Your task to perform on an android device: turn off javascript in the chrome app Image 0: 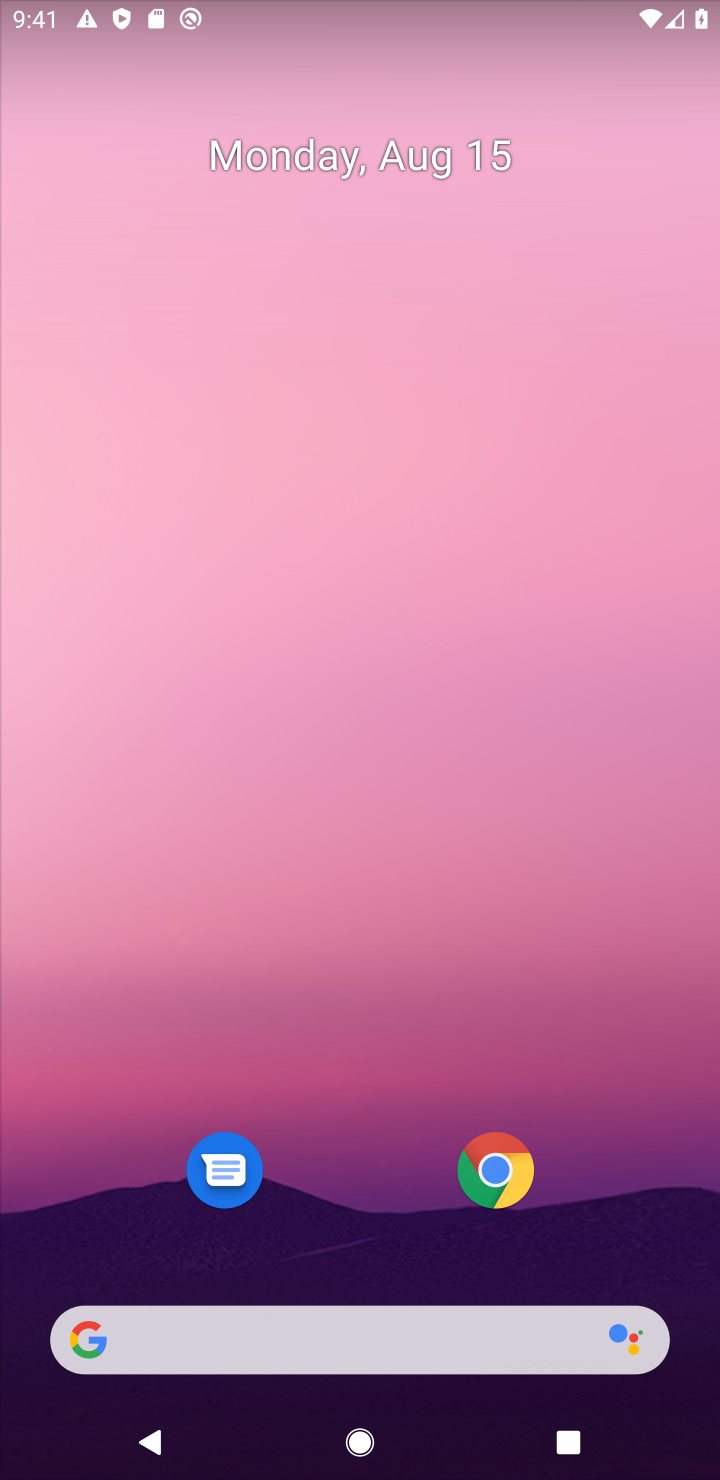
Step 0: press home button
Your task to perform on an android device: turn off javascript in the chrome app Image 1: 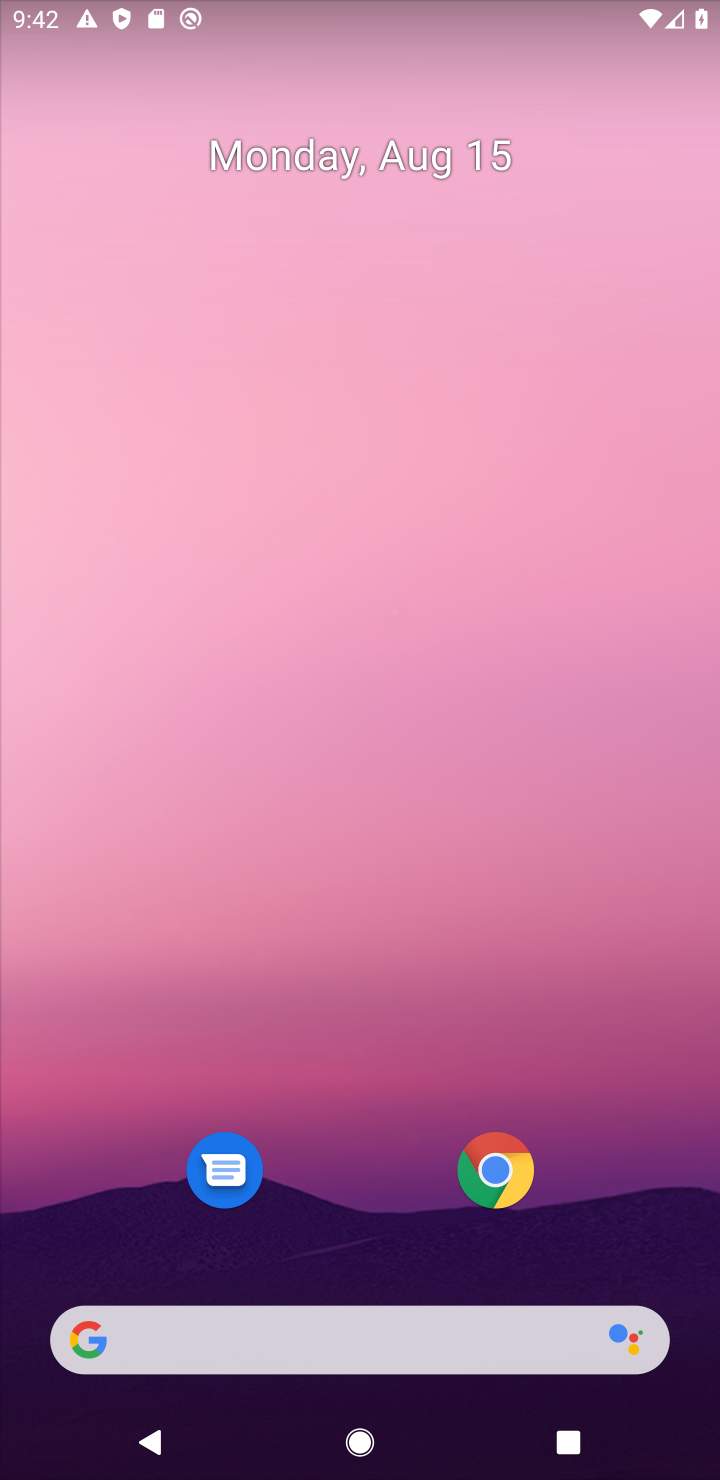
Step 1: drag from (381, 1224) to (455, 8)
Your task to perform on an android device: turn off javascript in the chrome app Image 2: 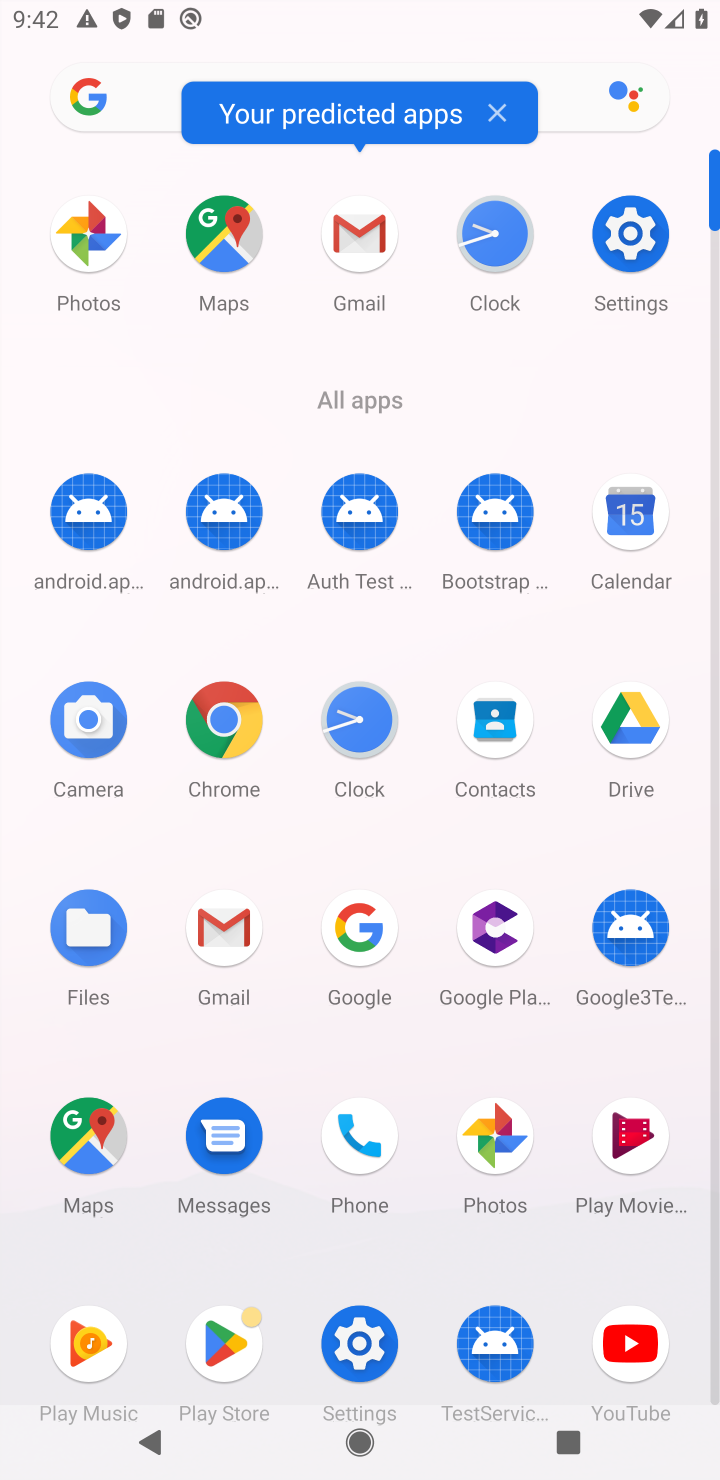
Step 2: click (213, 711)
Your task to perform on an android device: turn off javascript in the chrome app Image 3: 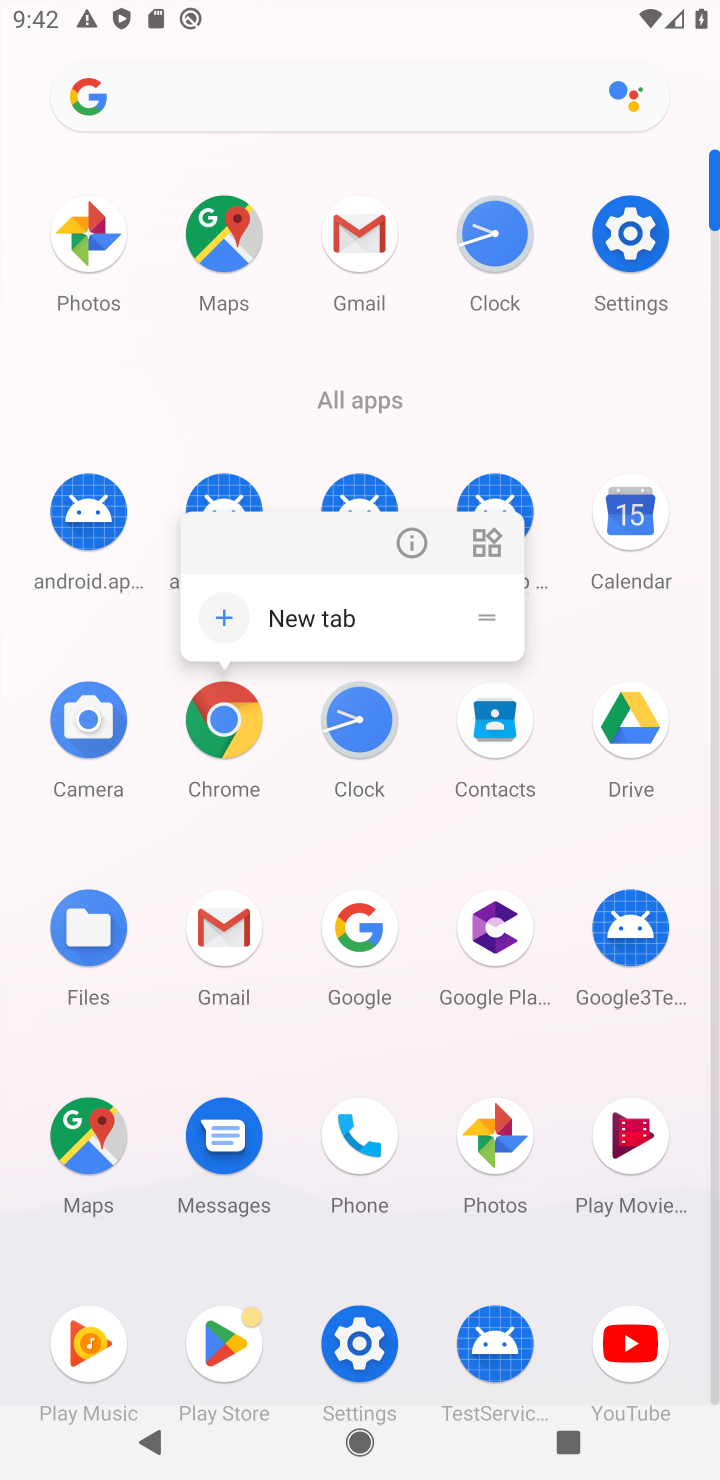
Step 3: click (218, 721)
Your task to perform on an android device: turn off javascript in the chrome app Image 4: 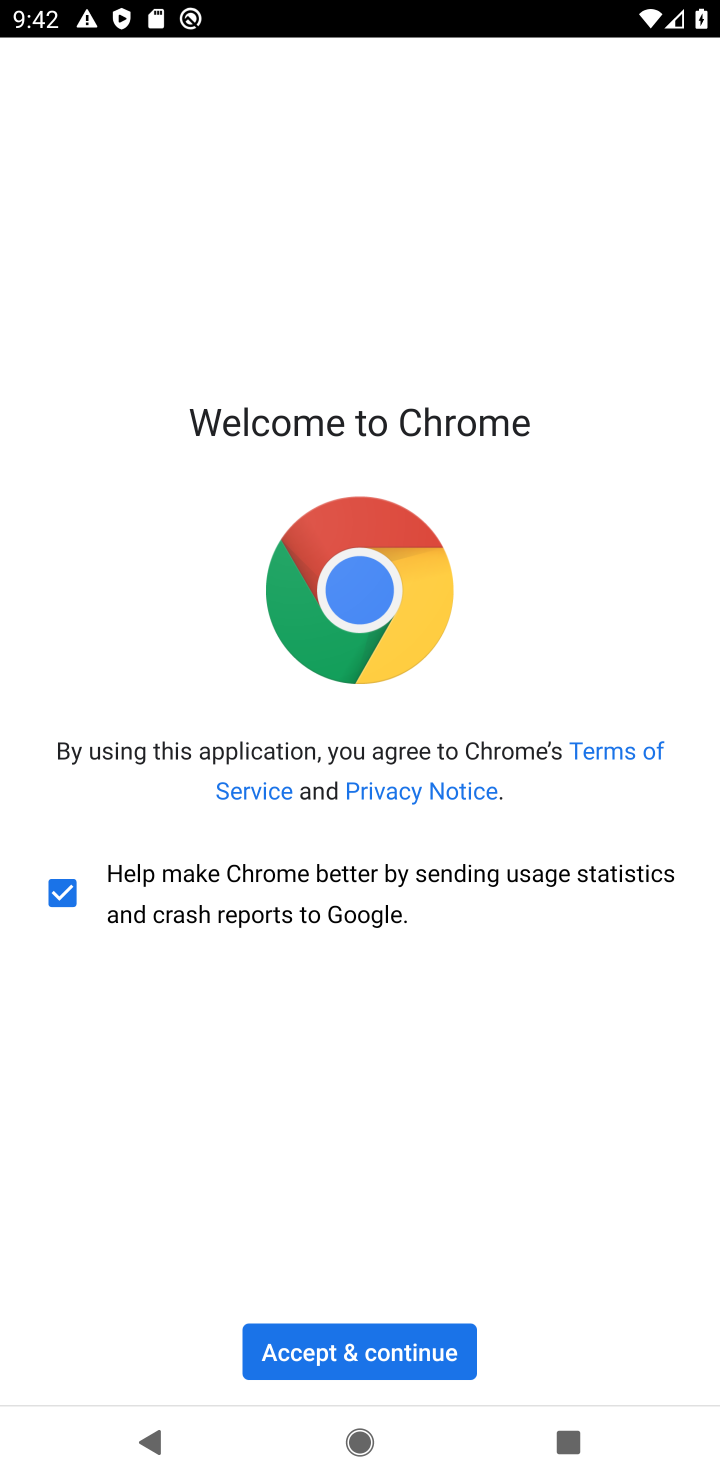
Step 4: click (349, 1335)
Your task to perform on an android device: turn off javascript in the chrome app Image 5: 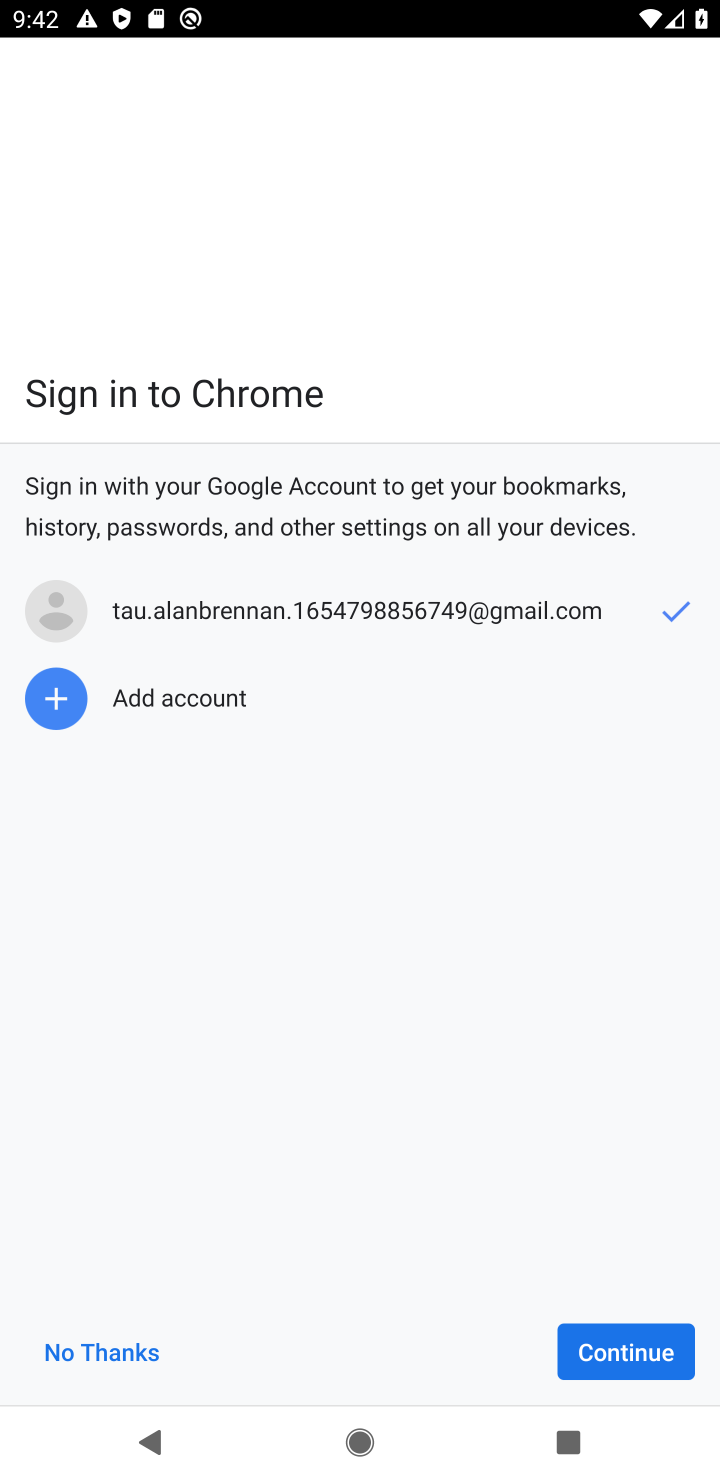
Step 5: click (627, 1343)
Your task to perform on an android device: turn off javascript in the chrome app Image 6: 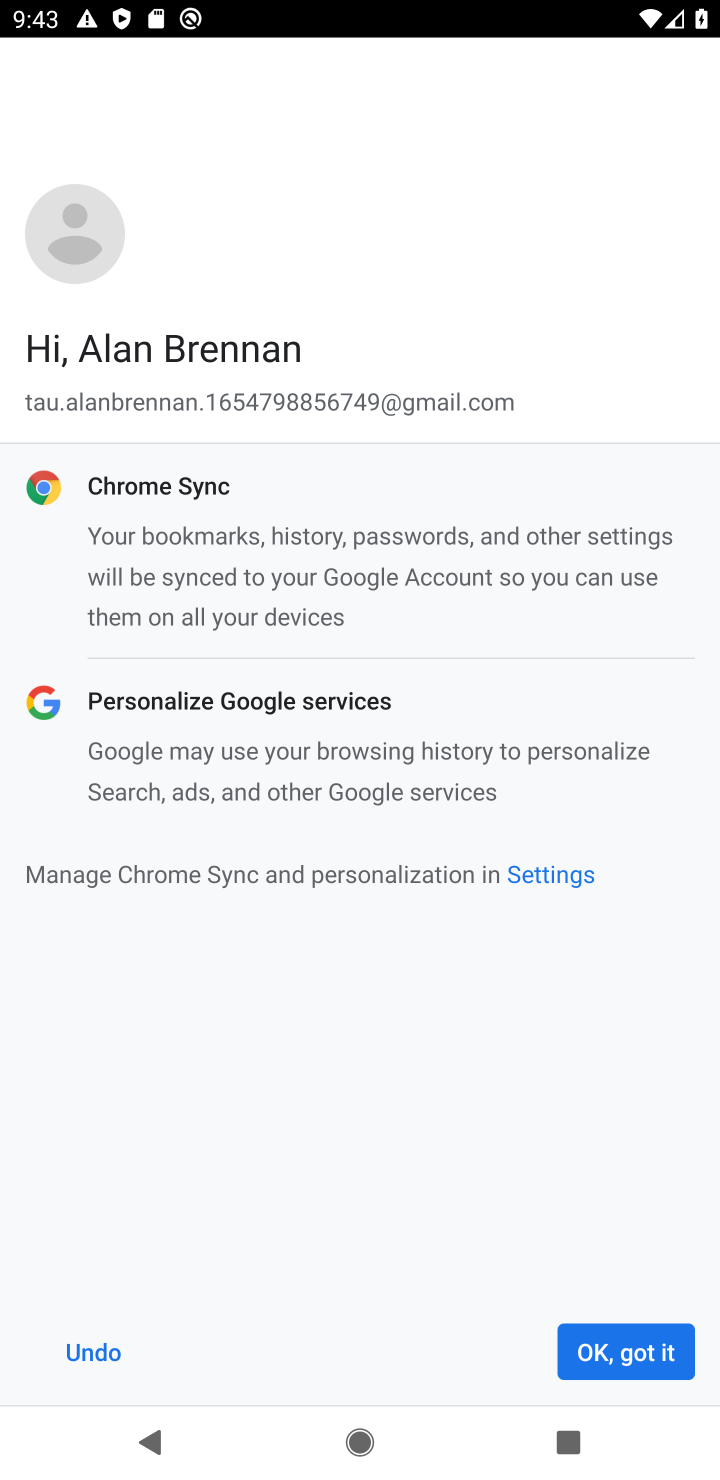
Step 6: click (627, 1343)
Your task to perform on an android device: turn off javascript in the chrome app Image 7: 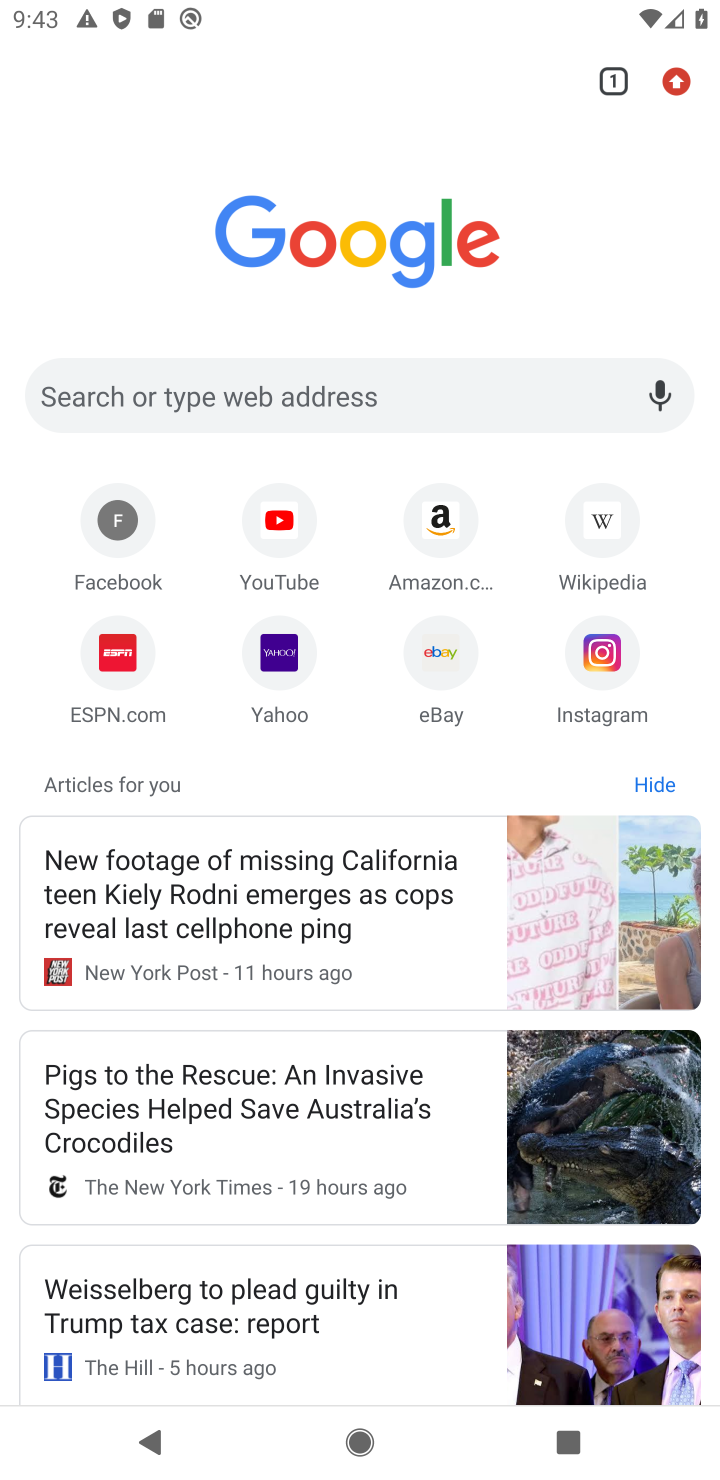
Step 7: click (677, 75)
Your task to perform on an android device: turn off javascript in the chrome app Image 8: 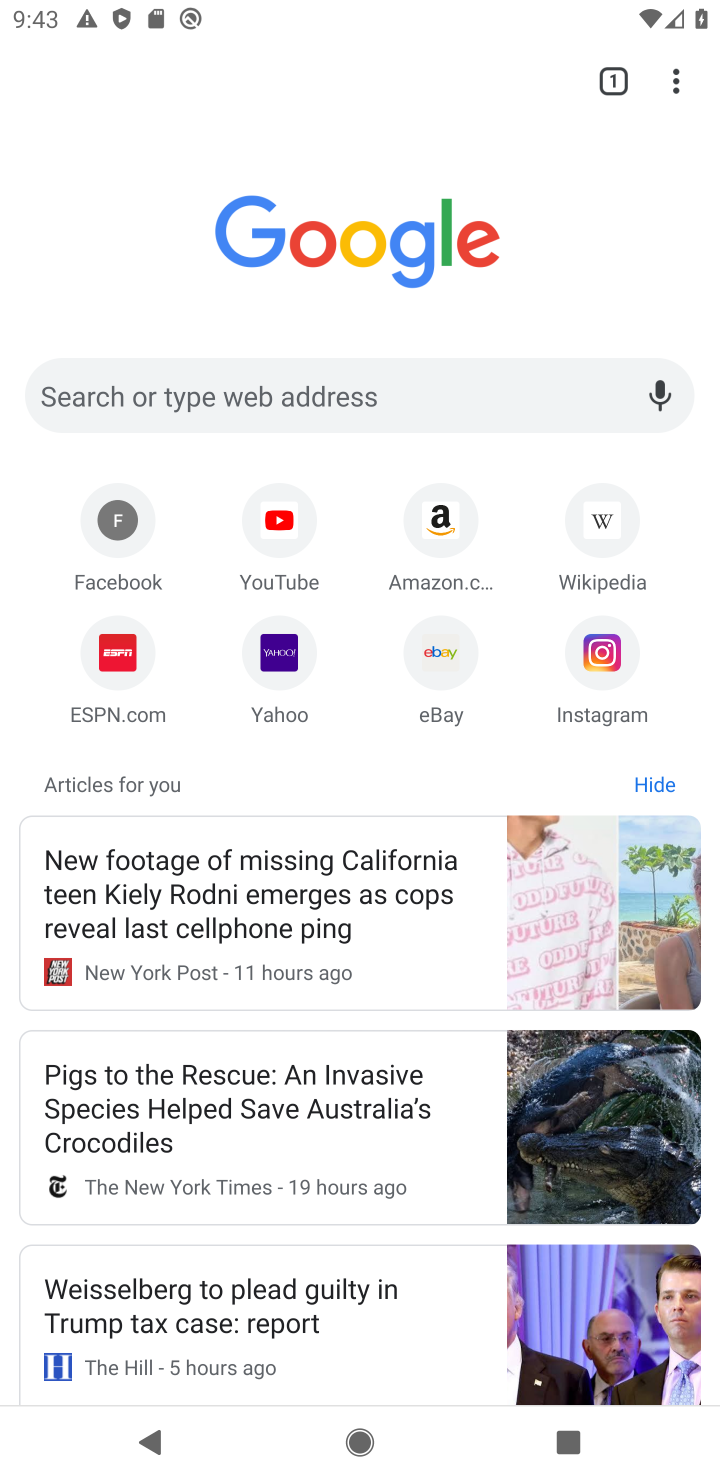
Step 8: click (677, 75)
Your task to perform on an android device: turn off javascript in the chrome app Image 9: 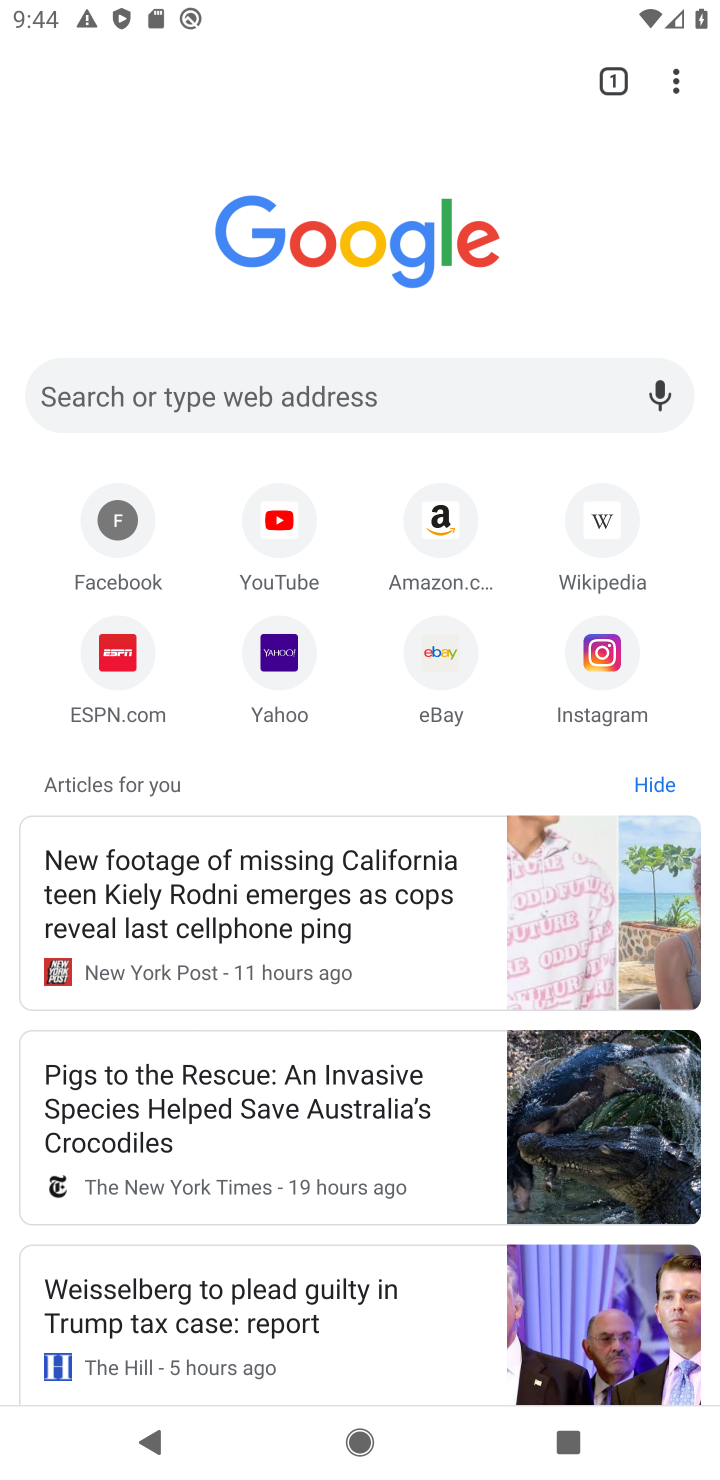
Step 9: click (677, 75)
Your task to perform on an android device: turn off javascript in the chrome app Image 10: 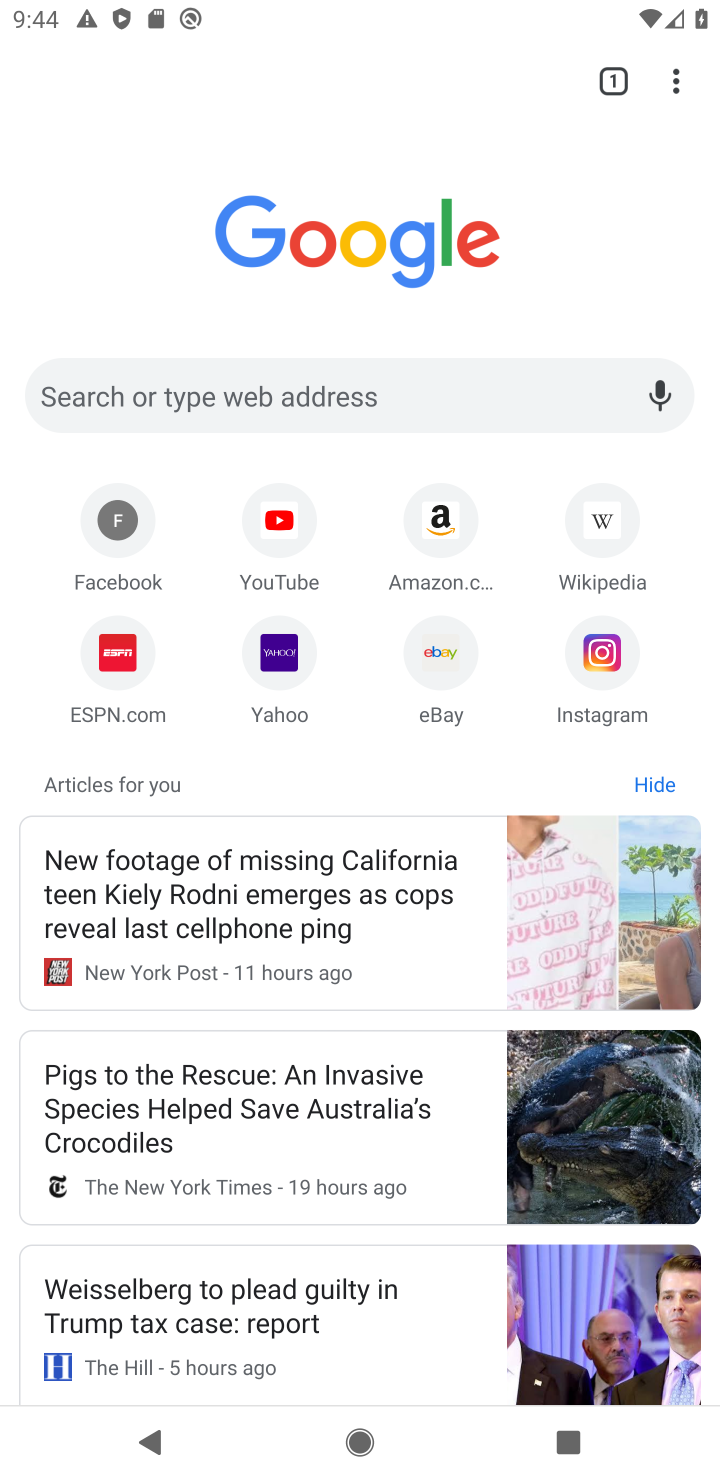
Step 10: click (671, 84)
Your task to perform on an android device: turn off javascript in the chrome app Image 11: 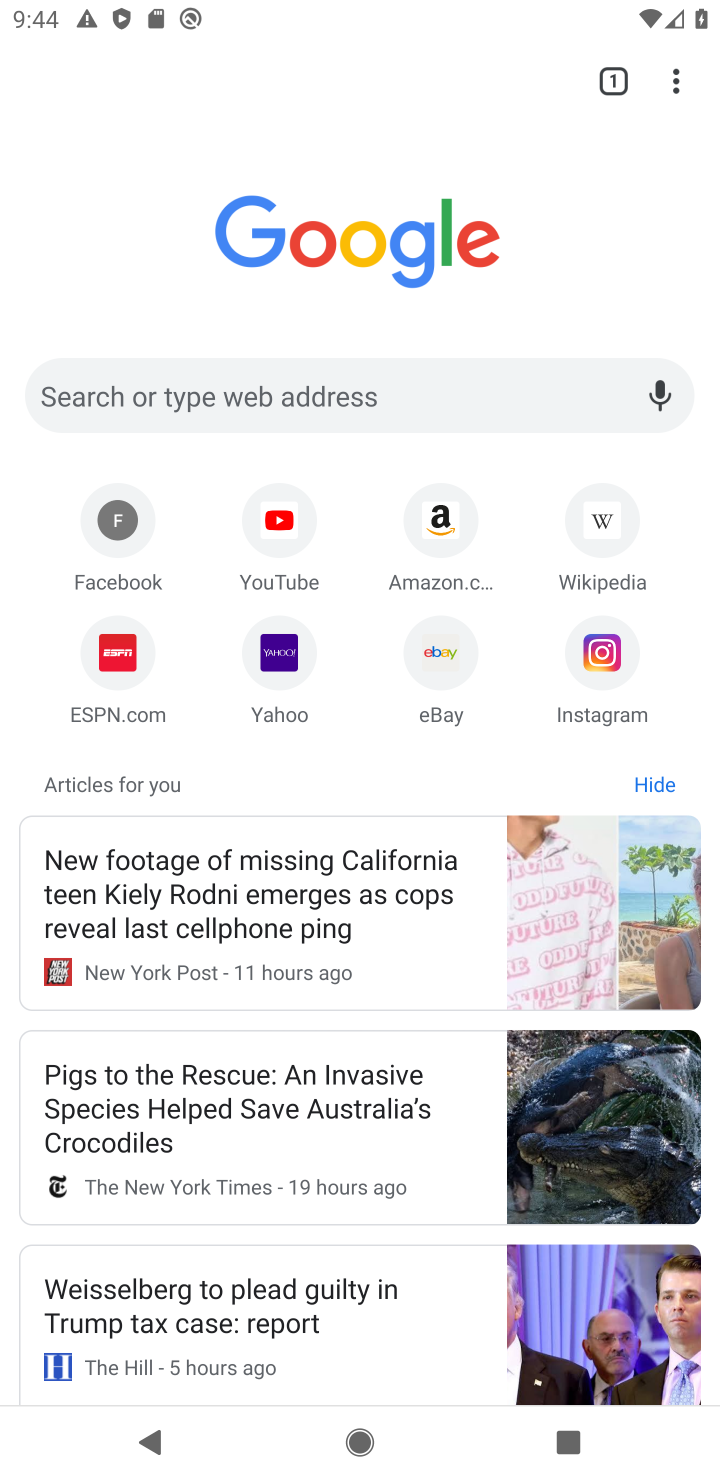
Step 11: click (671, 84)
Your task to perform on an android device: turn off javascript in the chrome app Image 12: 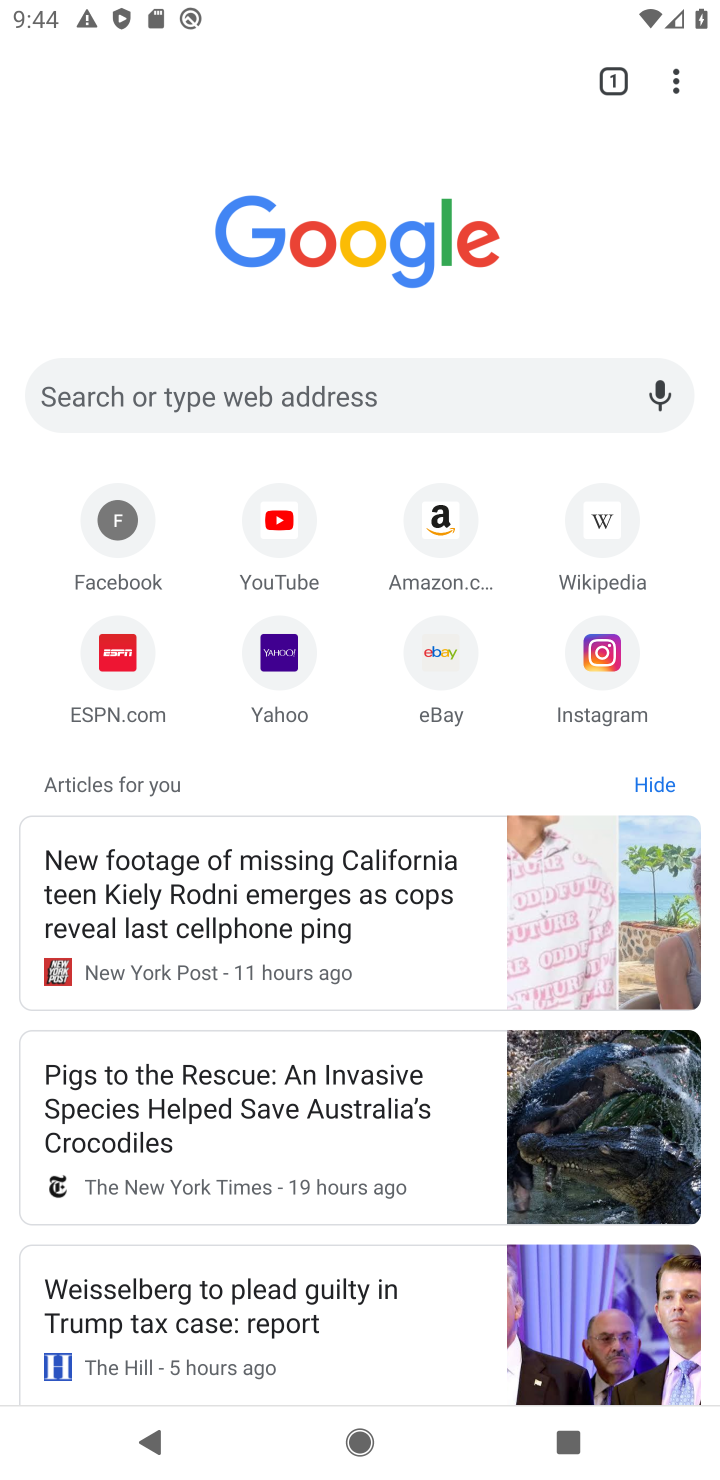
Step 12: click (677, 73)
Your task to perform on an android device: turn off javascript in the chrome app Image 13: 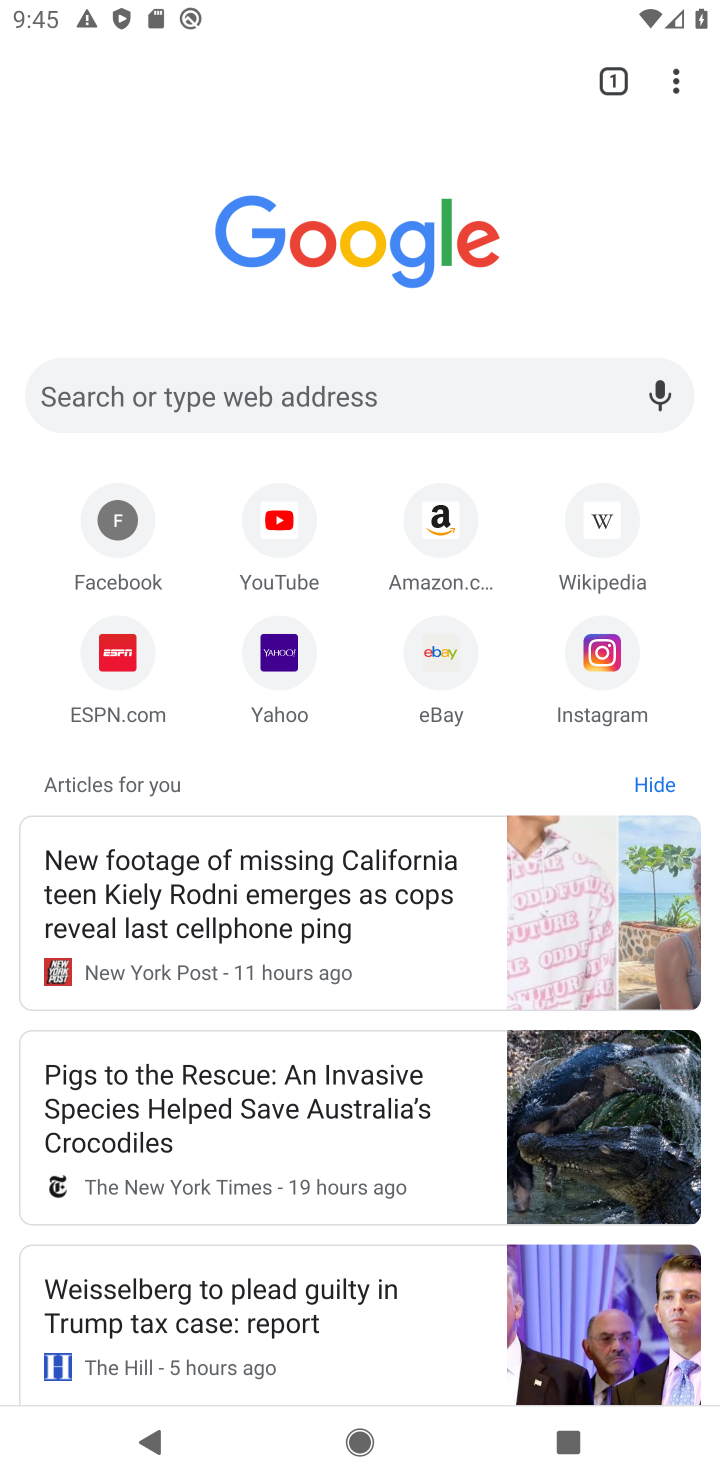
Step 13: click (677, 75)
Your task to perform on an android device: turn off javascript in the chrome app Image 14: 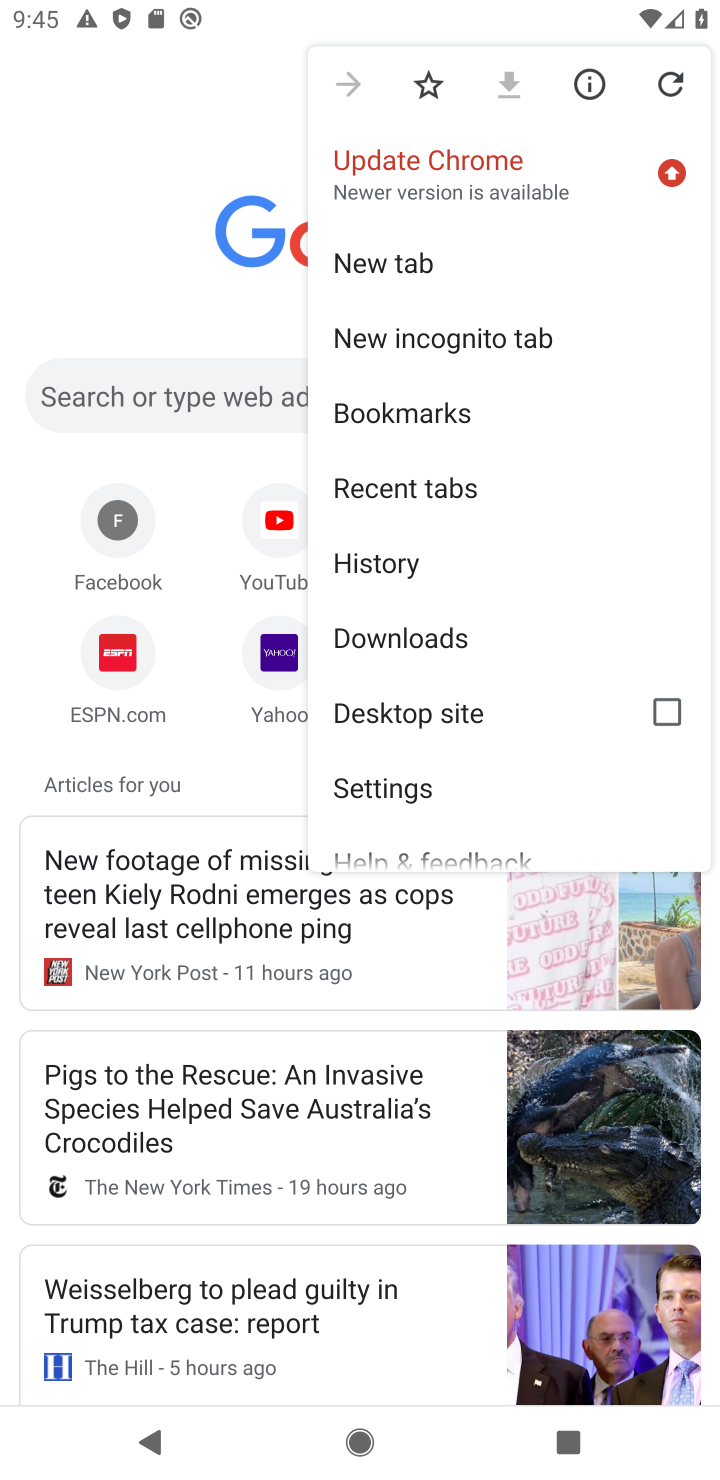
Step 14: click (454, 784)
Your task to perform on an android device: turn off javascript in the chrome app Image 15: 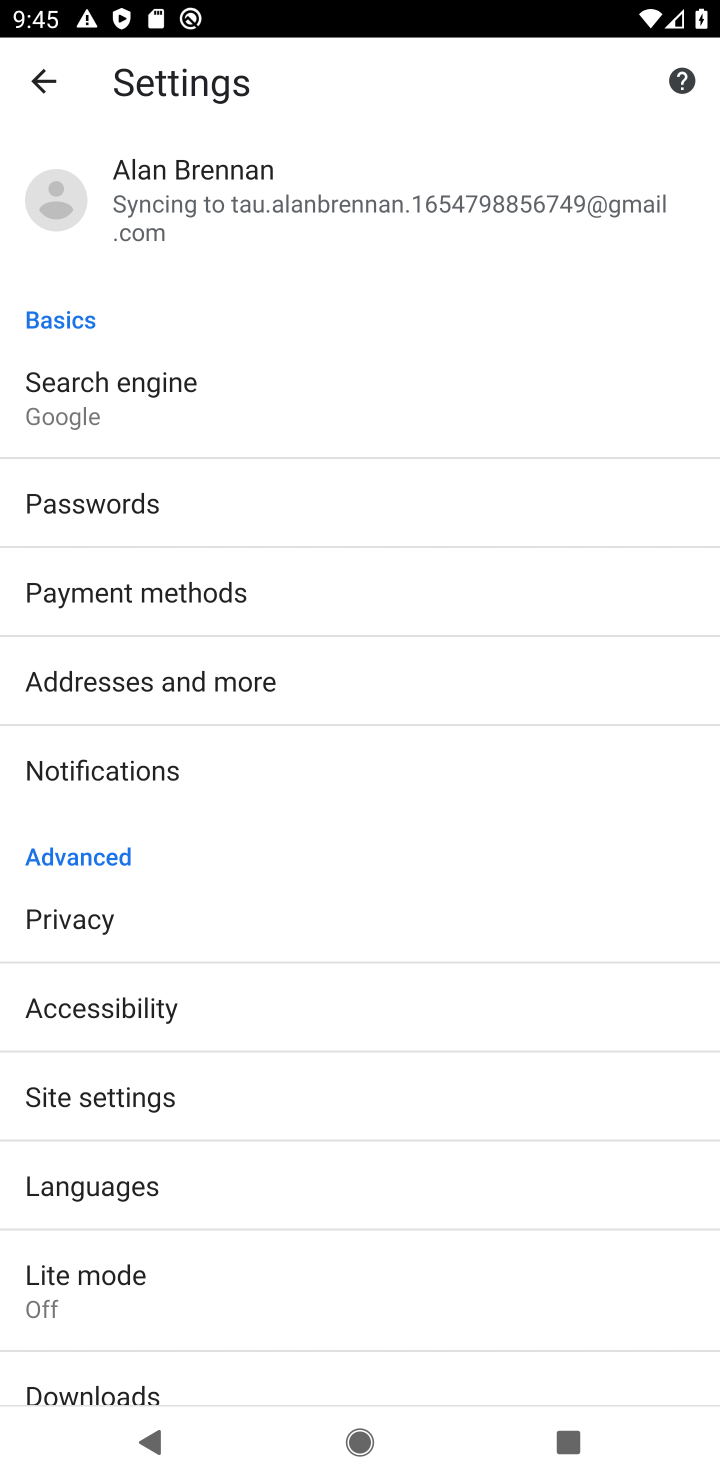
Step 15: click (208, 1099)
Your task to perform on an android device: turn off javascript in the chrome app Image 16: 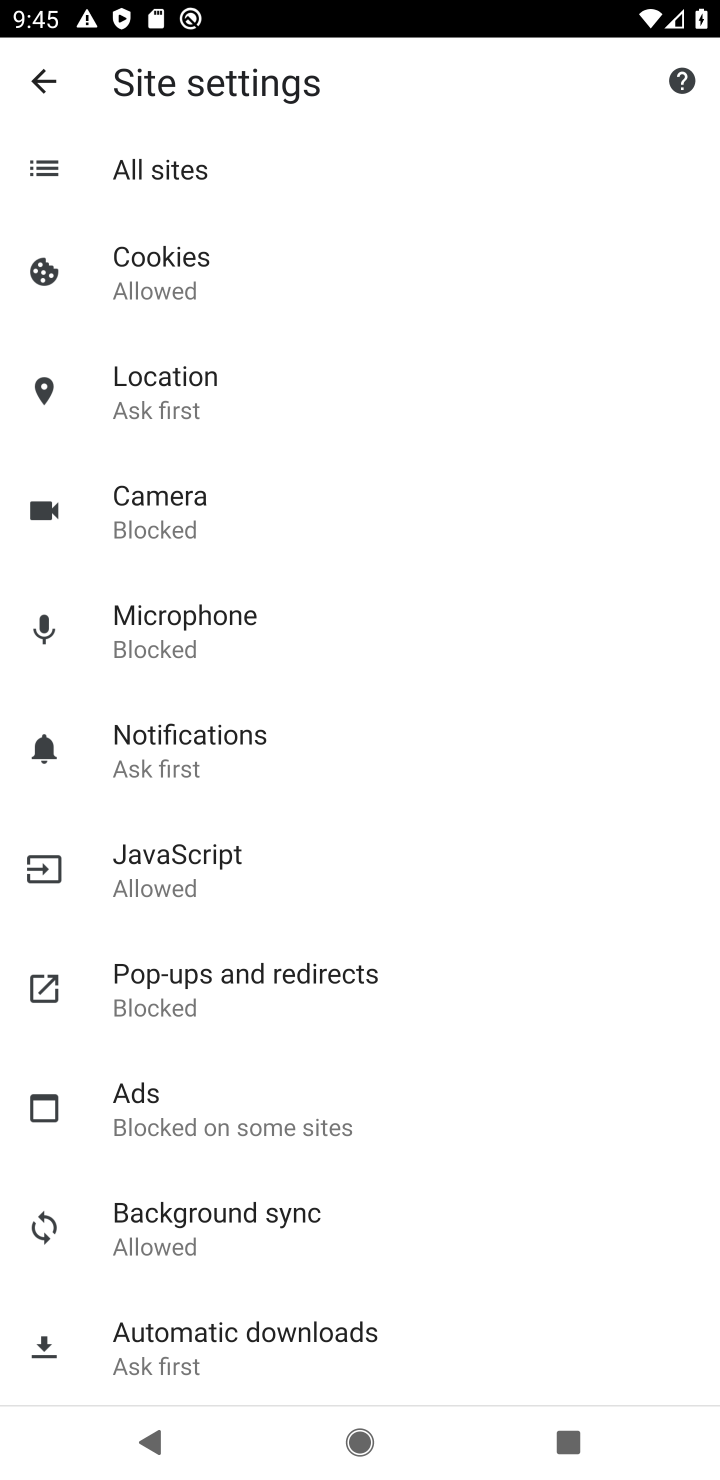
Step 16: click (258, 868)
Your task to perform on an android device: turn off javascript in the chrome app Image 17: 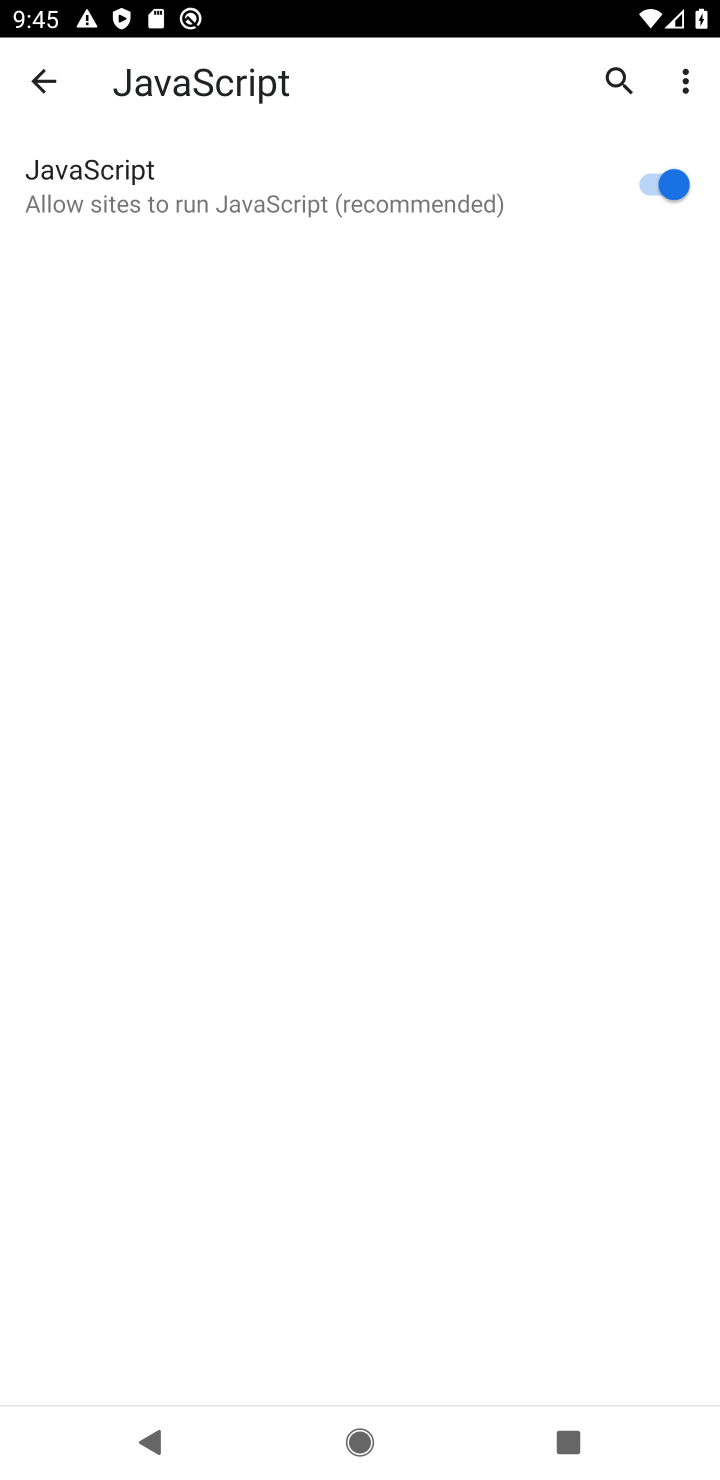
Step 17: click (648, 182)
Your task to perform on an android device: turn off javascript in the chrome app Image 18: 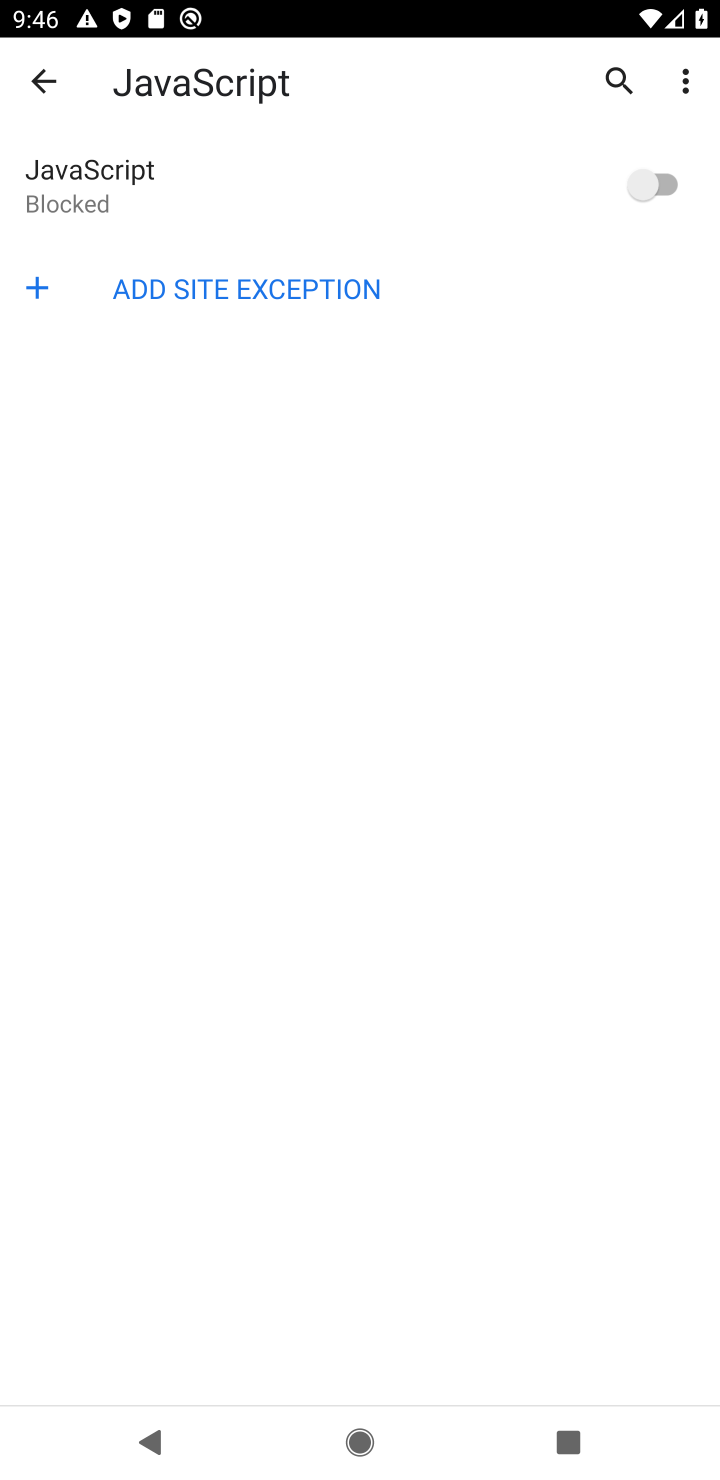
Step 18: task complete